Your task to perform on an android device: toggle notification dots Image 0: 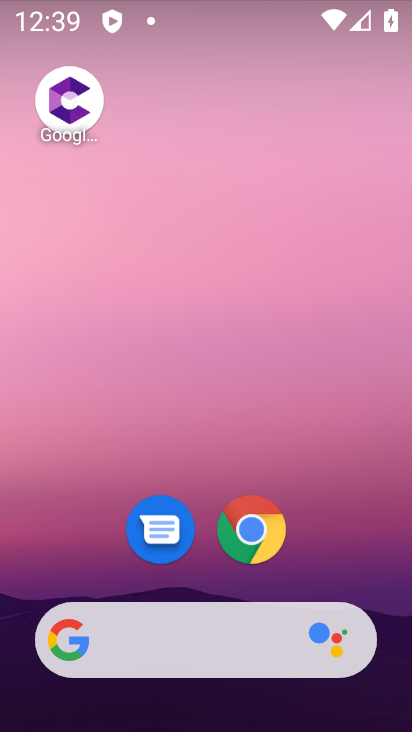
Step 0: drag from (333, 517) to (274, 9)
Your task to perform on an android device: toggle notification dots Image 1: 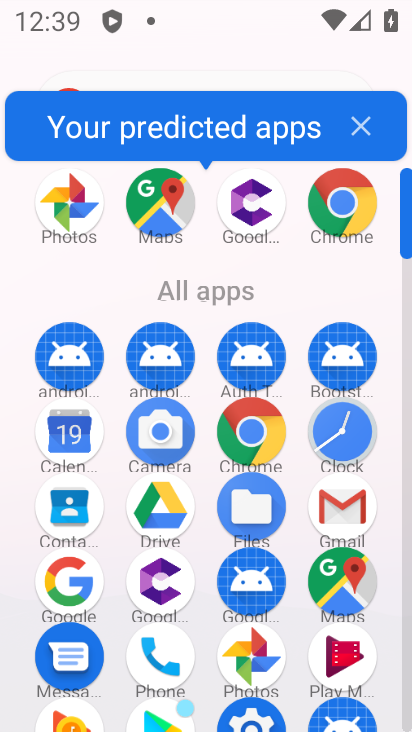
Step 1: drag from (293, 619) to (275, 278)
Your task to perform on an android device: toggle notification dots Image 2: 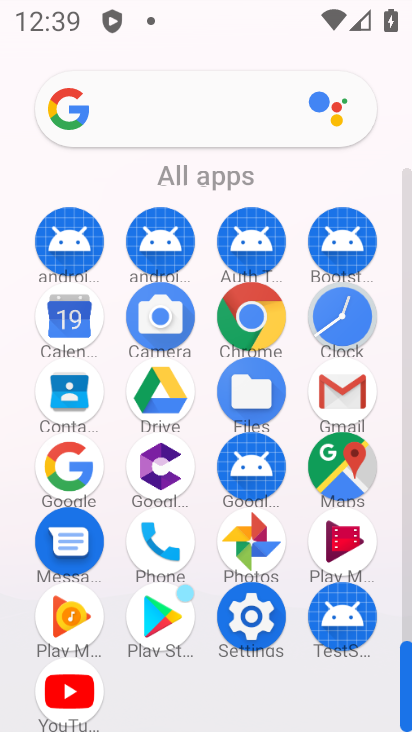
Step 2: click (255, 617)
Your task to perform on an android device: toggle notification dots Image 3: 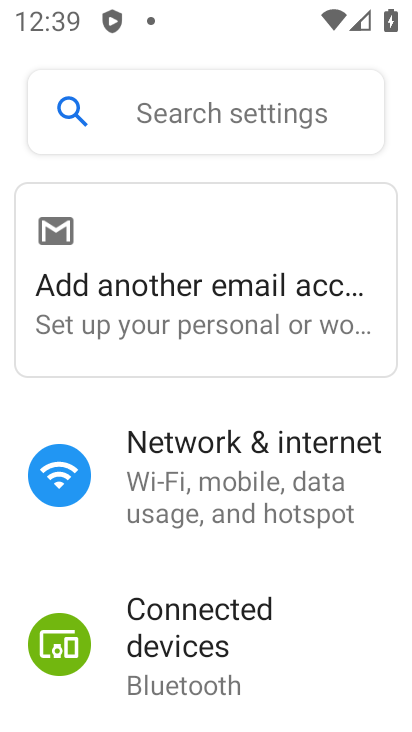
Step 3: drag from (209, 560) to (231, 449)
Your task to perform on an android device: toggle notification dots Image 4: 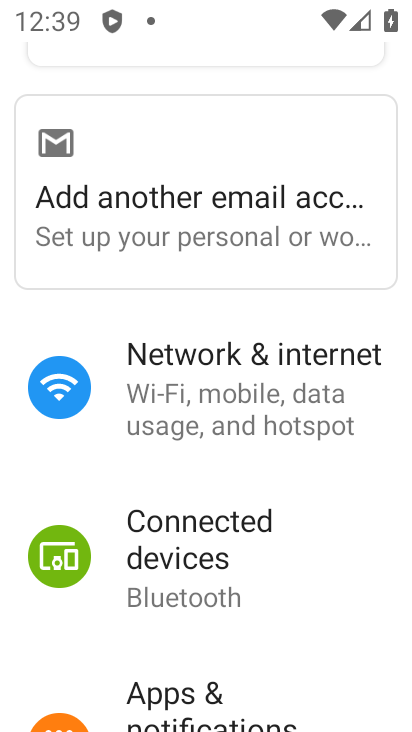
Step 4: drag from (230, 632) to (262, 526)
Your task to perform on an android device: toggle notification dots Image 5: 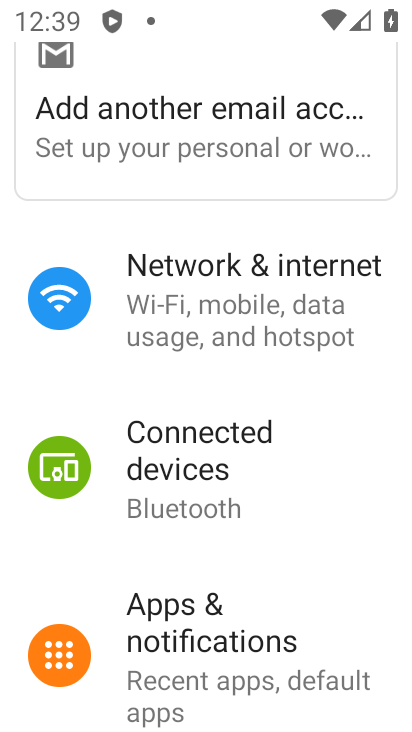
Step 5: click (198, 624)
Your task to perform on an android device: toggle notification dots Image 6: 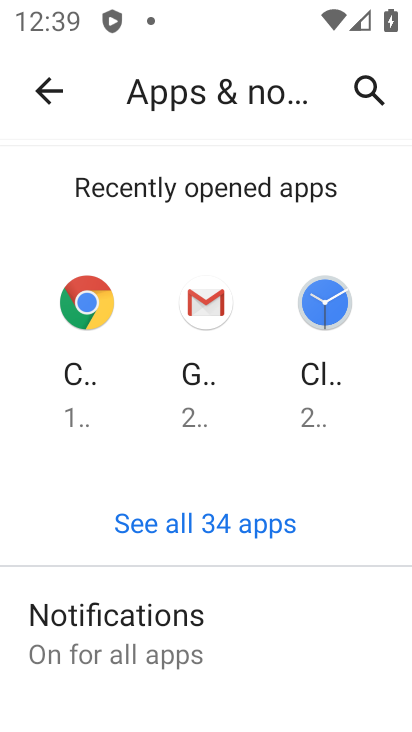
Step 6: drag from (260, 602) to (281, 513)
Your task to perform on an android device: toggle notification dots Image 7: 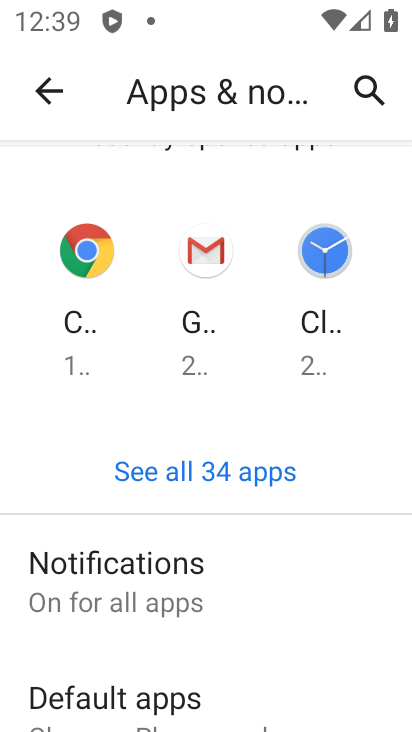
Step 7: click (169, 563)
Your task to perform on an android device: toggle notification dots Image 8: 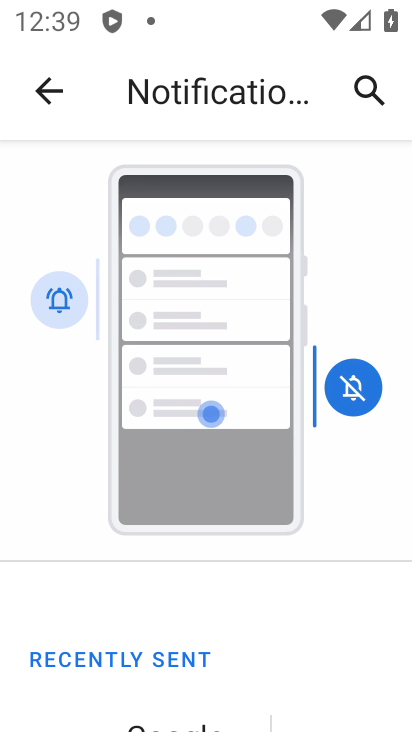
Step 8: drag from (245, 624) to (264, 530)
Your task to perform on an android device: toggle notification dots Image 9: 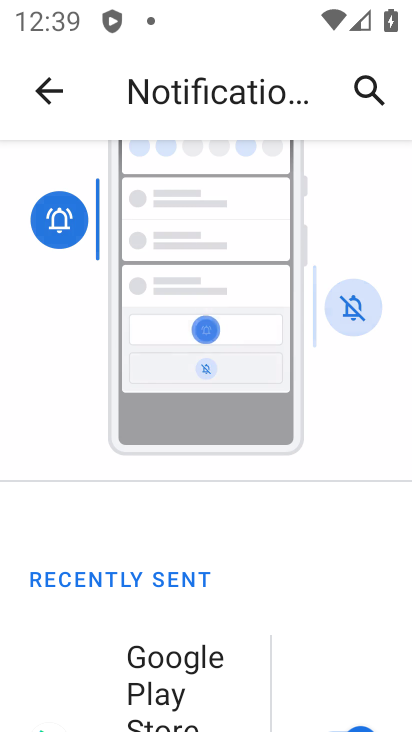
Step 9: drag from (232, 621) to (251, 508)
Your task to perform on an android device: toggle notification dots Image 10: 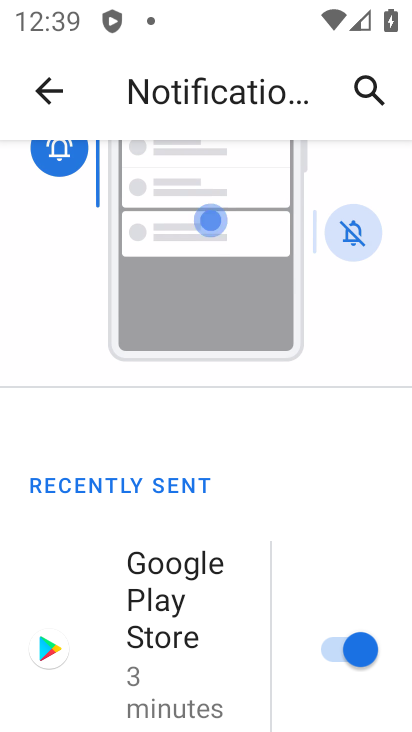
Step 10: drag from (225, 610) to (251, 494)
Your task to perform on an android device: toggle notification dots Image 11: 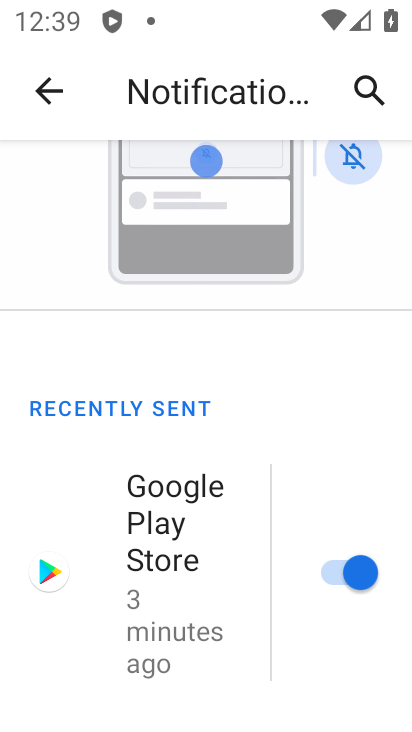
Step 11: drag from (220, 676) to (268, 541)
Your task to perform on an android device: toggle notification dots Image 12: 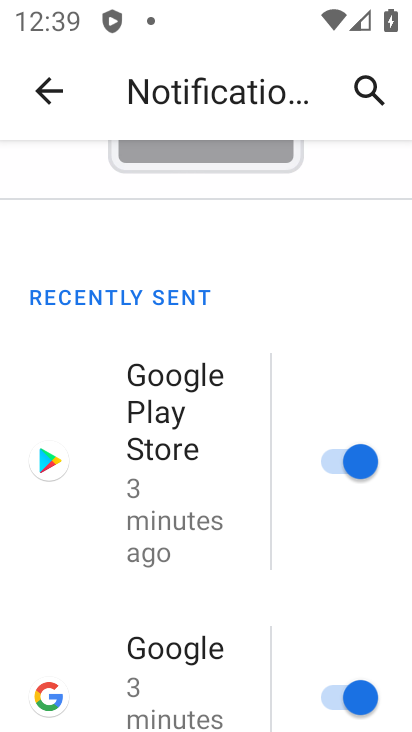
Step 12: drag from (194, 612) to (254, 455)
Your task to perform on an android device: toggle notification dots Image 13: 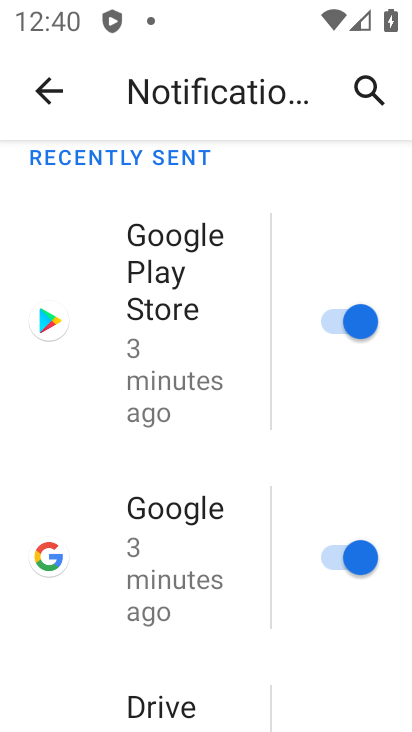
Step 13: drag from (171, 632) to (223, 416)
Your task to perform on an android device: toggle notification dots Image 14: 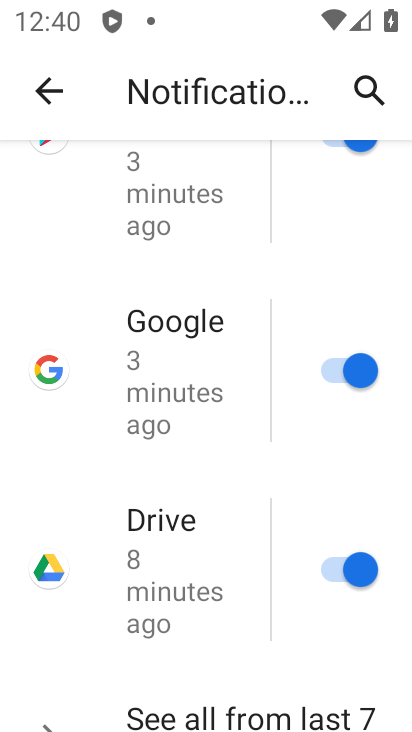
Step 14: drag from (190, 646) to (236, 519)
Your task to perform on an android device: toggle notification dots Image 15: 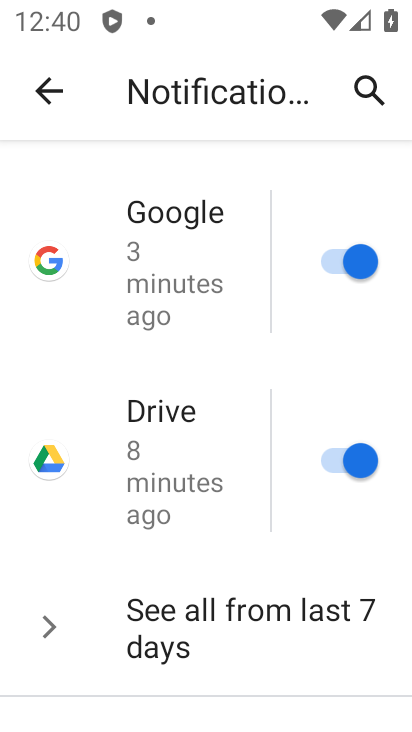
Step 15: drag from (169, 551) to (234, 448)
Your task to perform on an android device: toggle notification dots Image 16: 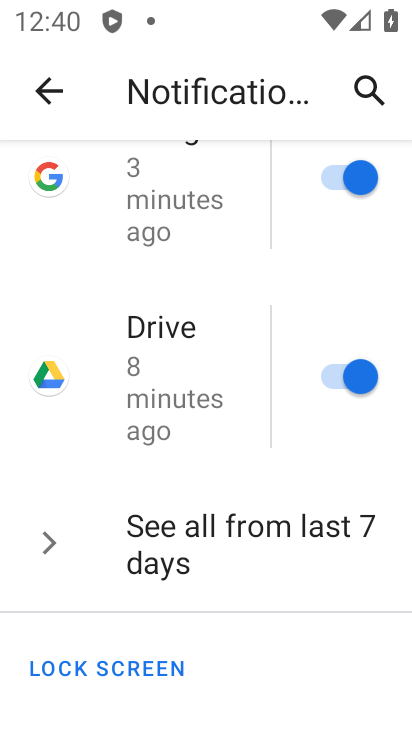
Step 16: drag from (194, 489) to (231, 384)
Your task to perform on an android device: toggle notification dots Image 17: 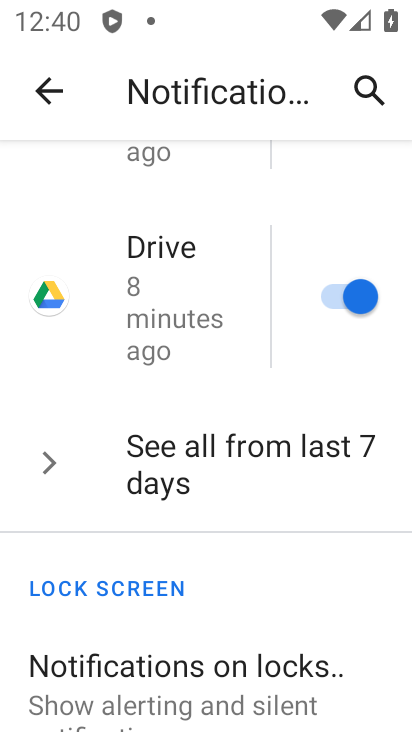
Step 17: drag from (188, 563) to (233, 455)
Your task to perform on an android device: toggle notification dots Image 18: 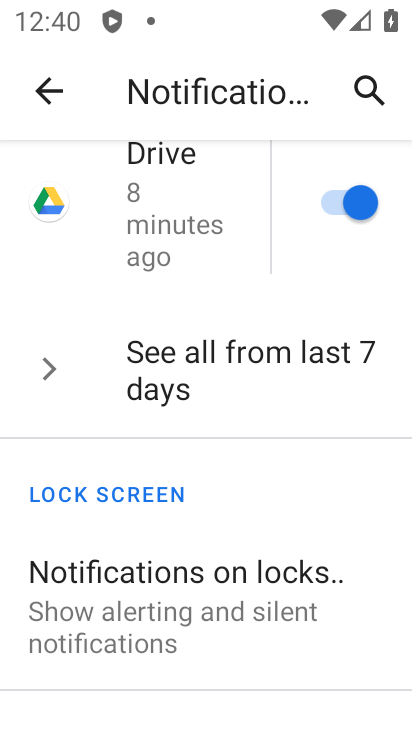
Step 18: drag from (223, 540) to (296, 413)
Your task to perform on an android device: toggle notification dots Image 19: 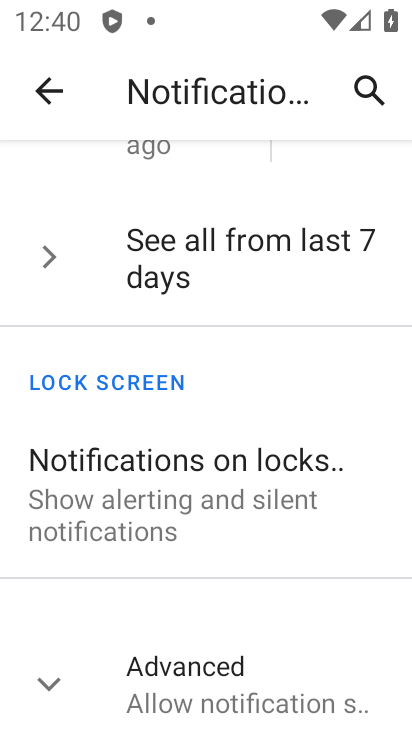
Step 19: click (202, 669)
Your task to perform on an android device: toggle notification dots Image 20: 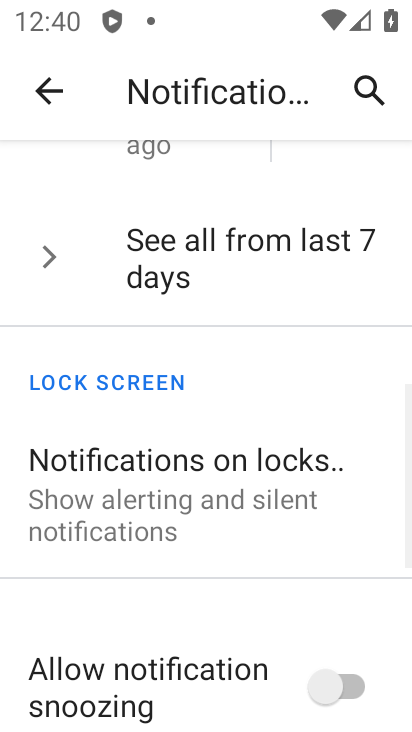
Step 20: drag from (193, 633) to (222, 545)
Your task to perform on an android device: toggle notification dots Image 21: 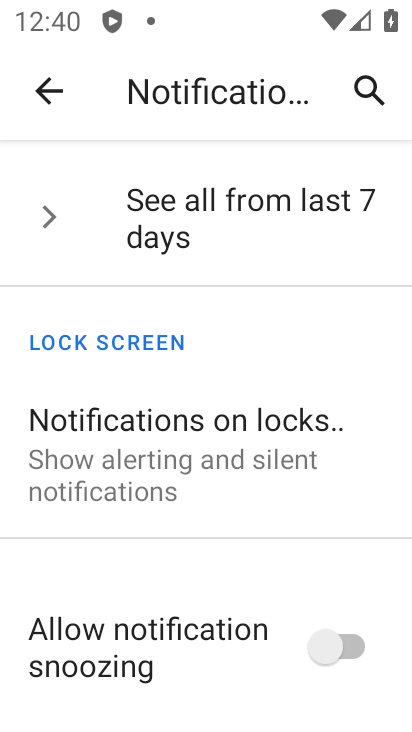
Step 21: drag from (192, 677) to (223, 541)
Your task to perform on an android device: toggle notification dots Image 22: 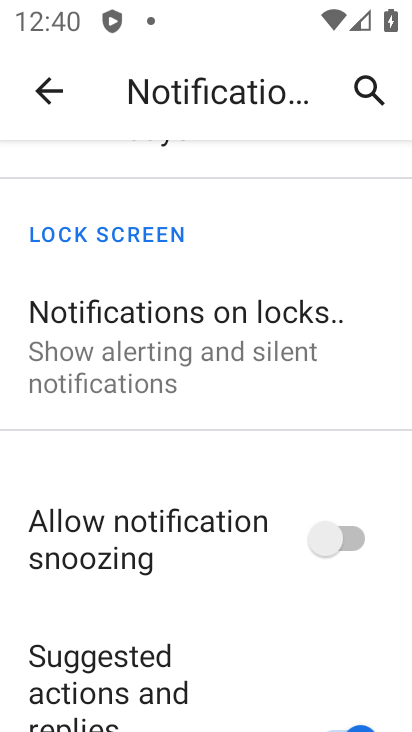
Step 22: drag from (180, 611) to (230, 472)
Your task to perform on an android device: toggle notification dots Image 23: 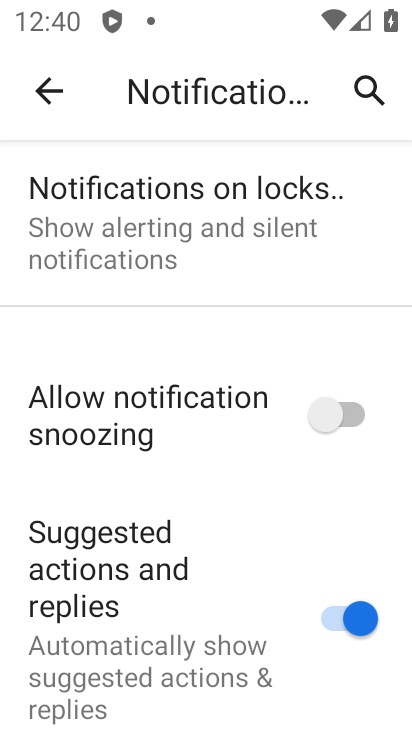
Step 23: drag from (221, 586) to (261, 435)
Your task to perform on an android device: toggle notification dots Image 24: 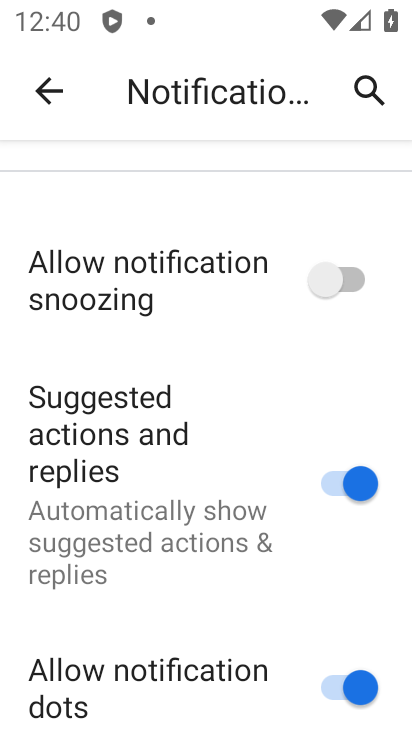
Step 24: drag from (193, 624) to (253, 503)
Your task to perform on an android device: toggle notification dots Image 25: 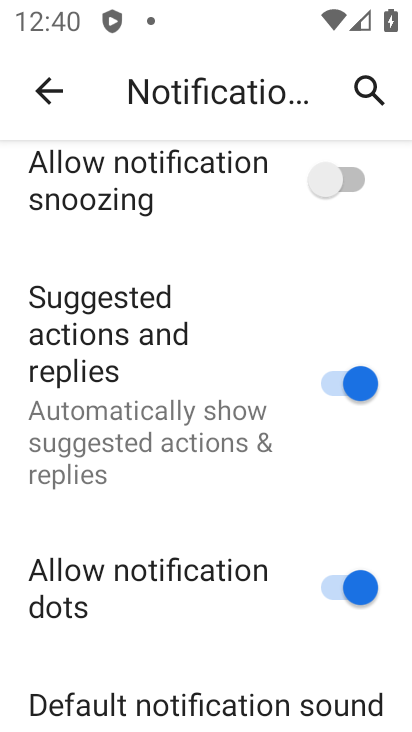
Step 25: click (355, 589)
Your task to perform on an android device: toggle notification dots Image 26: 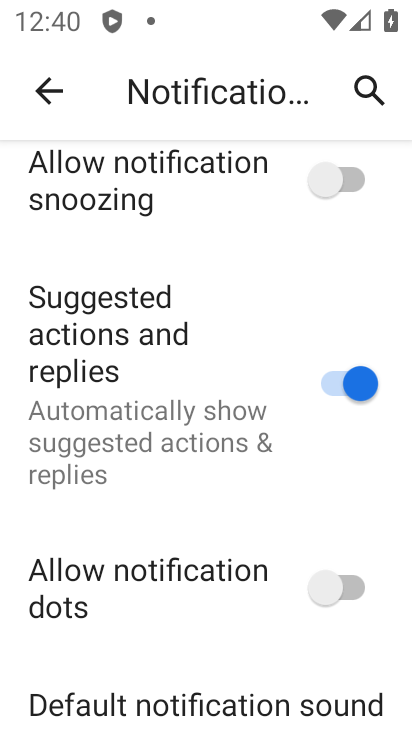
Step 26: task complete